Your task to perform on an android device: toggle wifi Image 0: 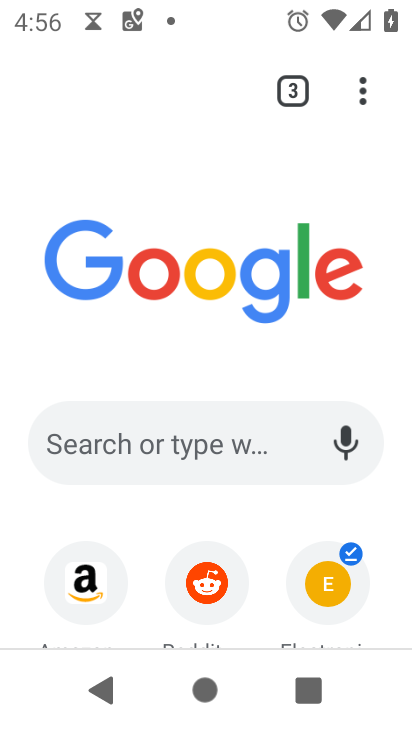
Step 0: press home button
Your task to perform on an android device: toggle wifi Image 1: 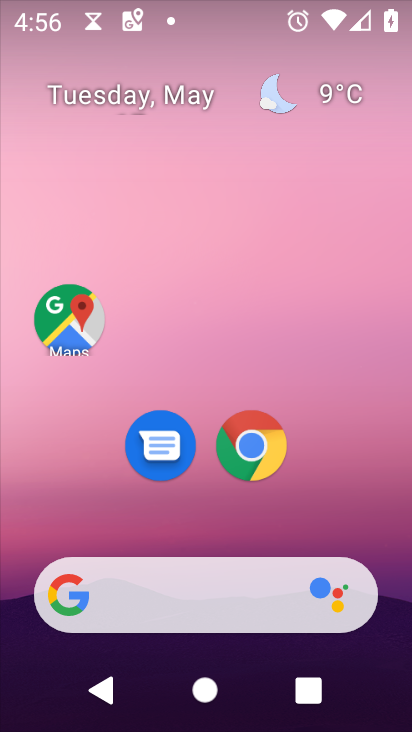
Step 1: drag from (308, 567) to (333, 23)
Your task to perform on an android device: toggle wifi Image 2: 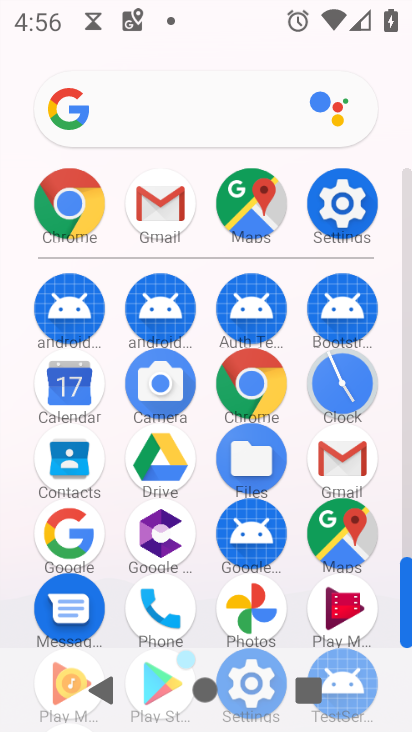
Step 2: click (331, 188)
Your task to perform on an android device: toggle wifi Image 3: 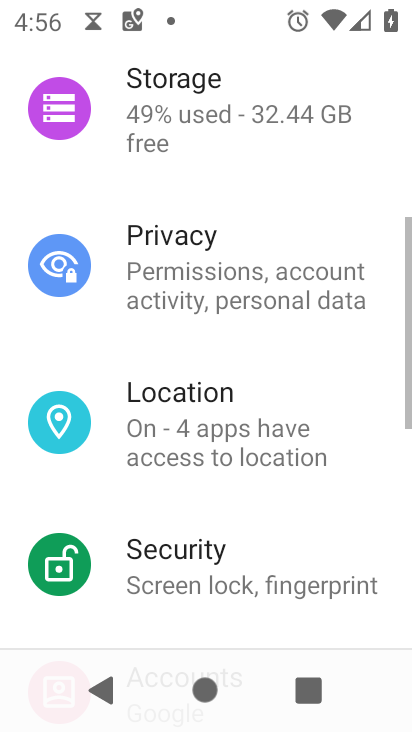
Step 3: drag from (241, 180) to (267, 686)
Your task to perform on an android device: toggle wifi Image 4: 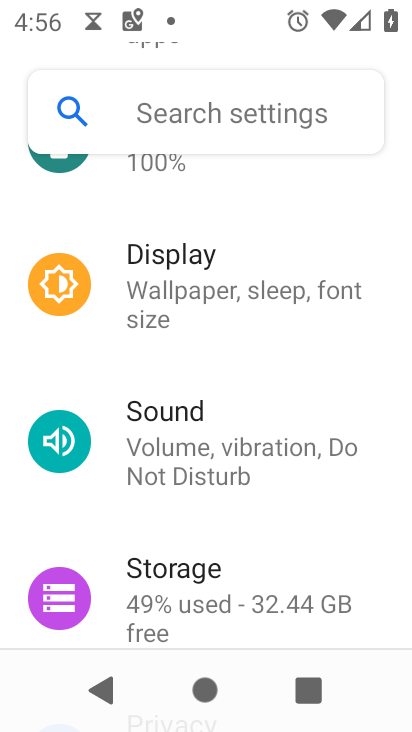
Step 4: drag from (272, 275) to (276, 593)
Your task to perform on an android device: toggle wifi Image 5: 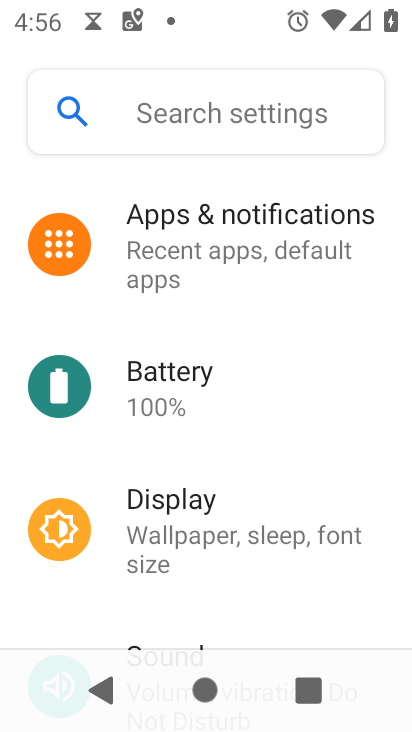
Step 5: drag from (236, 275) to (254, 608)
Your task to perform on an android device: toggle wifi Image 6: 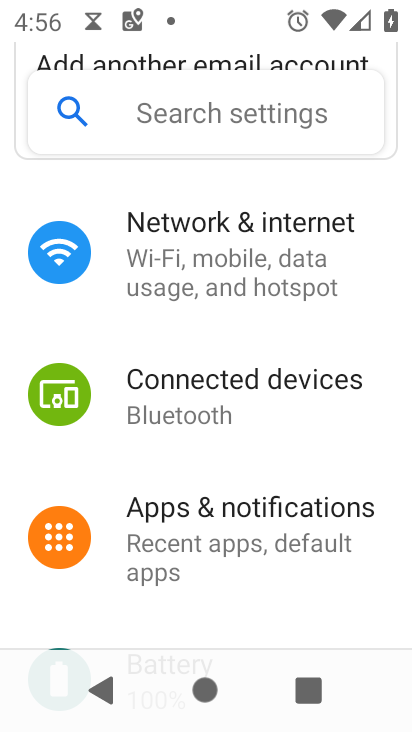
Step 6: click (243, 241)
Your task to perform on an android device: toggle wifi Image 7: 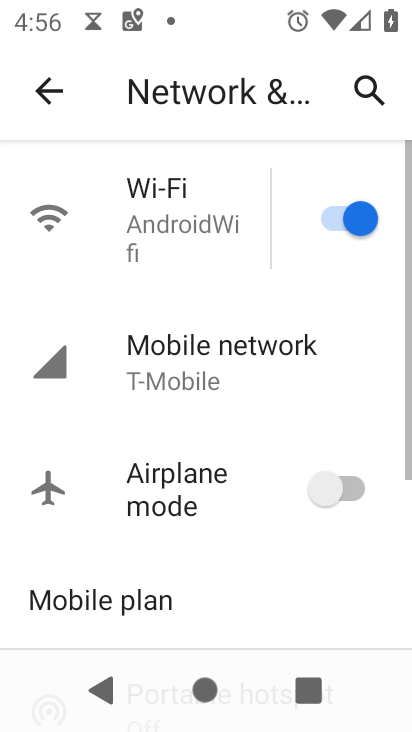
Step 7: click (335, 213)
Your task to perform on an android device: toggle wifi Image 8: 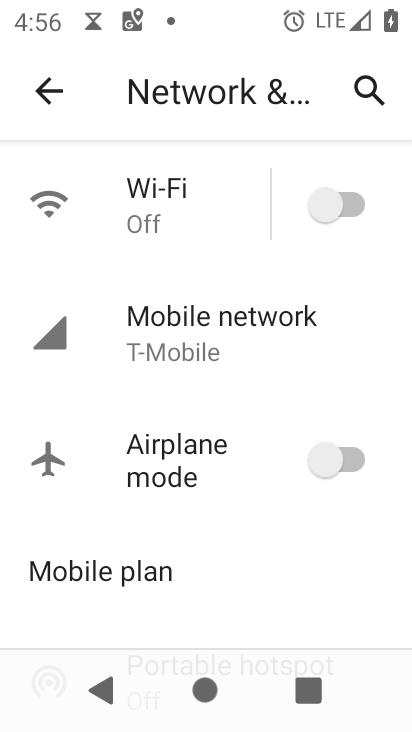
Step 8: task complete